Your task to perform on an android device: When is my next appointment? Image 0: 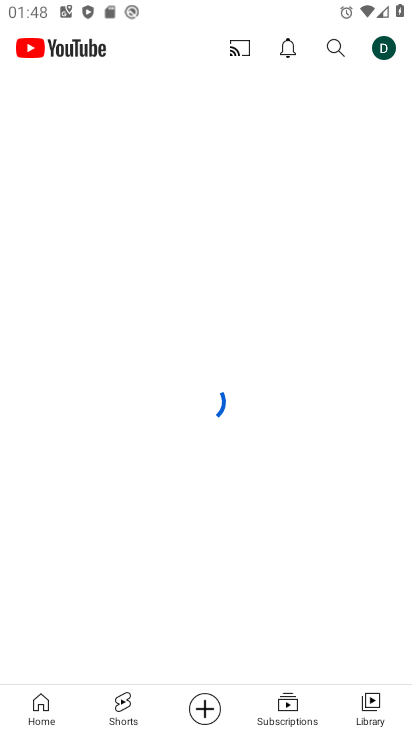
Step 0: drag from (239, 629) to (202, 245)
Your task to perform on an android device: When is my next appointment? Image 1: 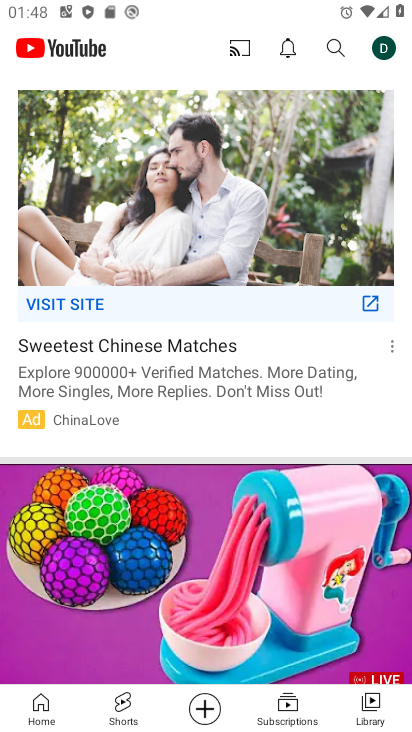
Step 1: press home button
Your task to perform on an android device: When is my next appointment? Image 2: 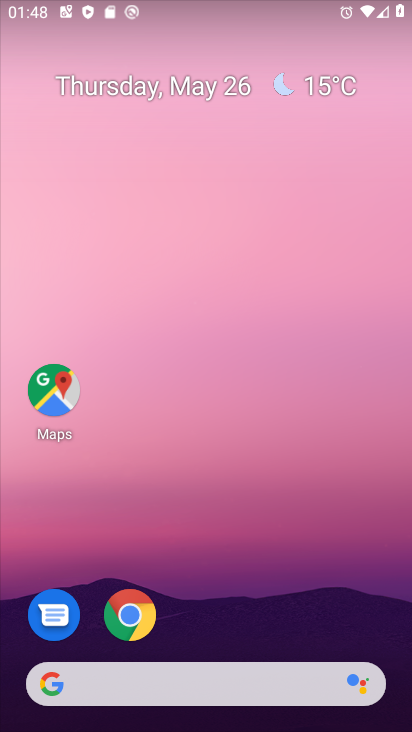
Step 2: drag from (269, 628) to (320, 39)
Your task to perform on an android device: When is my next appointment? Image 3: 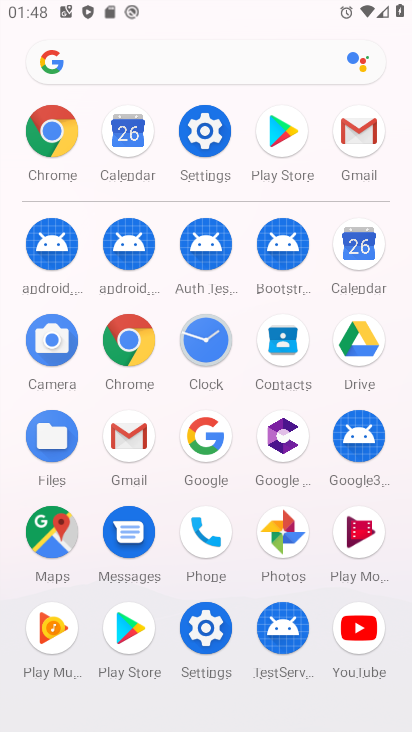
Step 3: click (354, 240)
Your task to perform on an android device: When is my next appointment? Image 4: 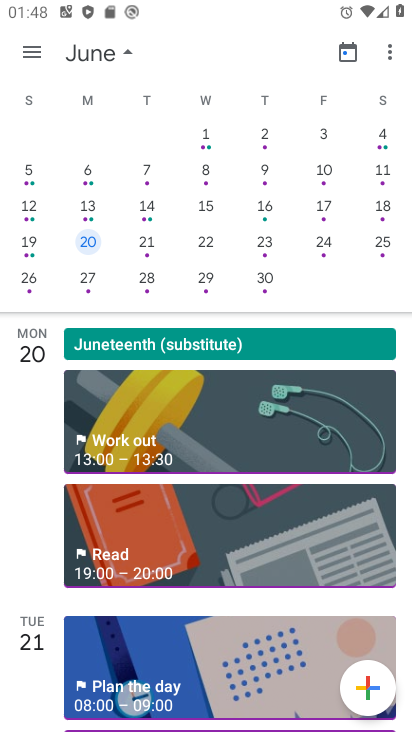
Step 4: drag from (12, 229) to (368, 205)
Your task to perform on an android device: When is my next appointment? Image 5: 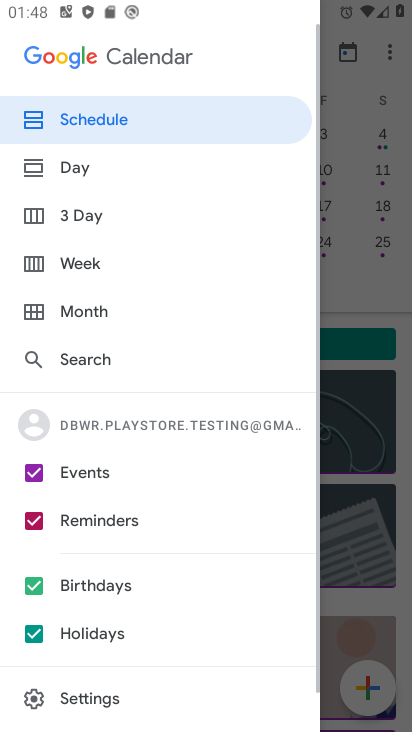
Step 5: drag from (368, 209) to (86, 202)
Your task to perform on an android device: When is my next appointment? Image 6: 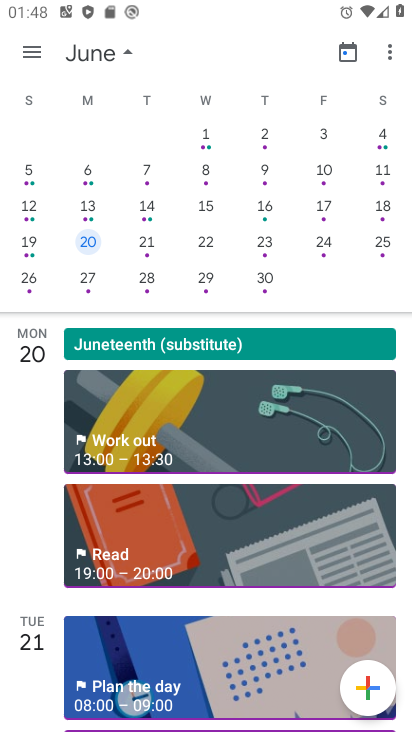
Step 6: drag from (81, 205) to (370, 202)
Your task to perform on an android device: When is my next appointment? Image 7: 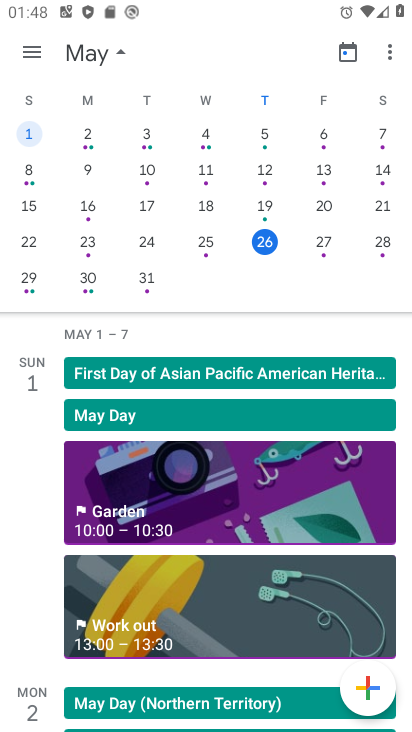
Step 7: click (263, 245)
Your task to perform on an android device: When is my next appointment? Image 8: 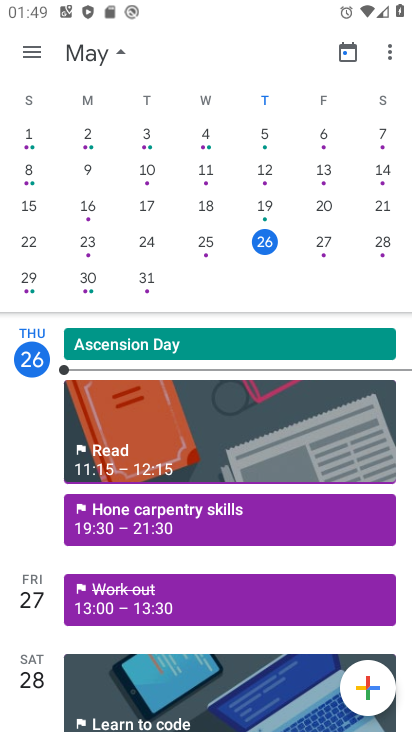
Step 8: task complete